Your task to perform on an android device: turn pop-ups on in chrome Image 0: 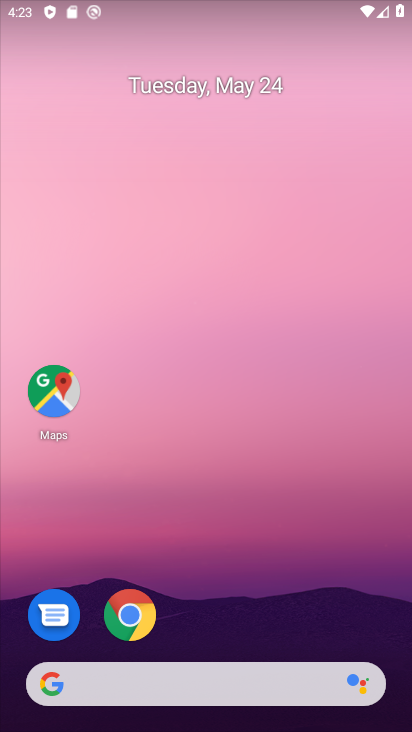
Step 0: click (142, 623)
Your task to perform on an android device: turn pop-ups on in chrome Image 1: 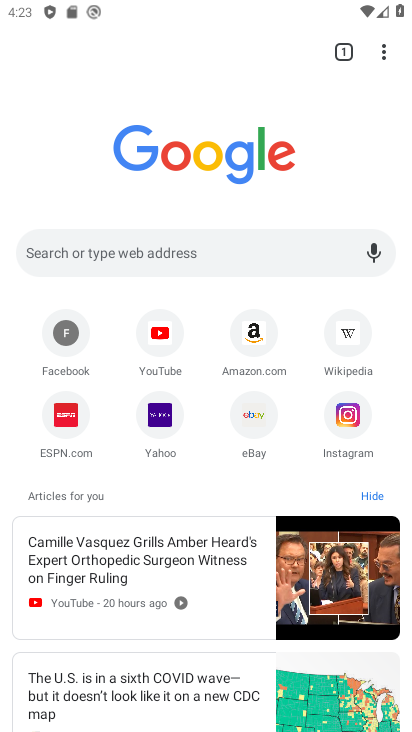
Step 1: click (380, 49)
Your task to perform on an android device: turn pop-ups on in chrome Image 2: 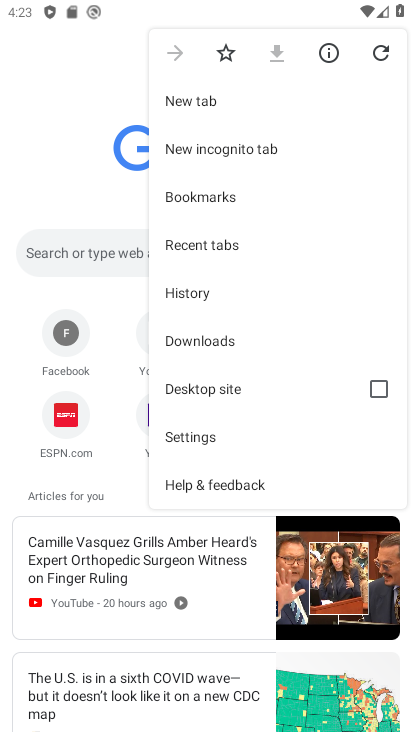
Step 2: click (224, 429)
Your task to perform on an android device: turn pop-ups on in chrome Image 3: 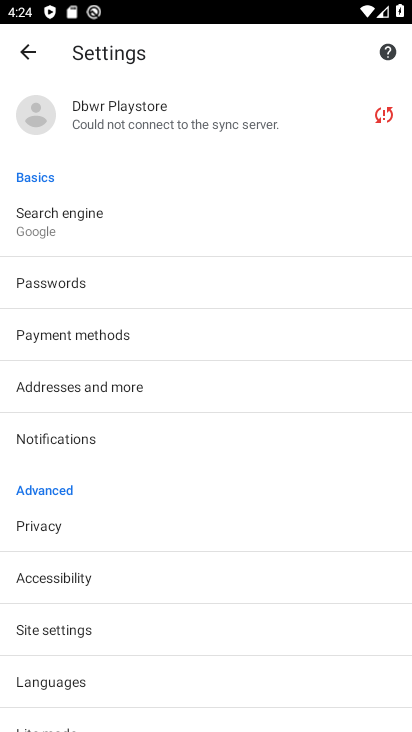
Step 3: click (145, 626)
Your task to perform on an android device: turn pop-ups on in chrome Image 4: 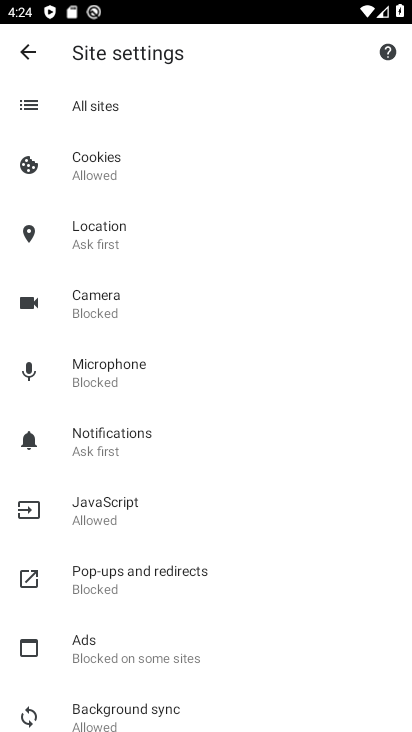
Step 4: click (167, 594)
Your task to perform on an android device: turn pop-ups on in chrome Image 5: 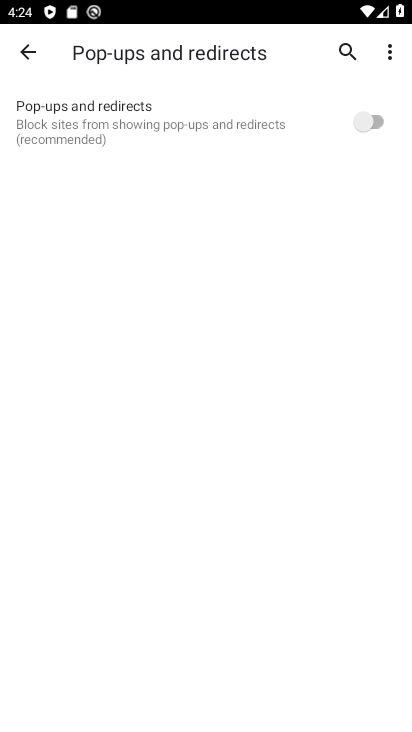
Step 5: click (375, 130)
Your task to perform on an android device: turn pop-ups on in chrome Image 6: 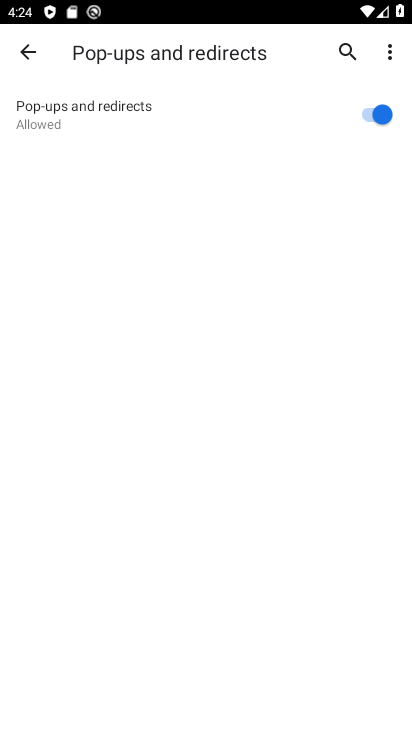
Step 6: task complete